Your task to perform on an android device: allow cookies in the chrome app Image 0: 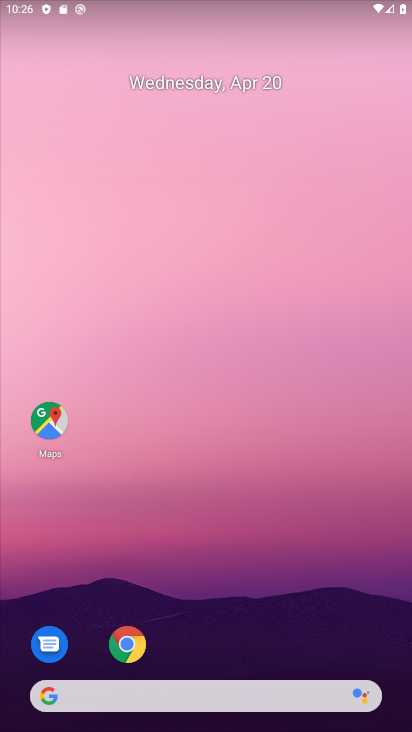
Step 0: click (124, 647)
Your task to perform on an android device: allow cookies in the chrome app Image 1: 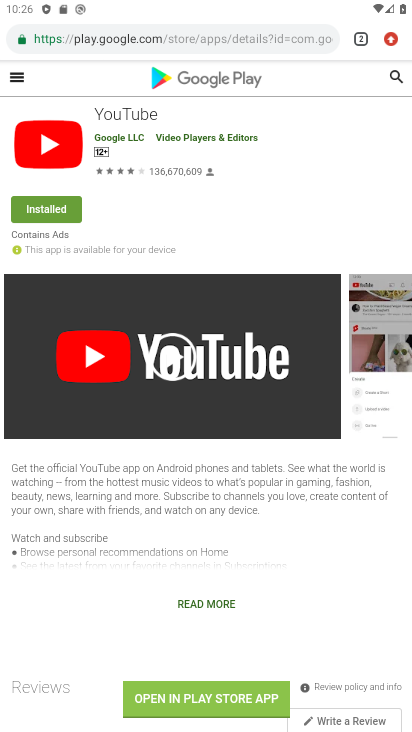
Step 1: click (388, 41)
Your task to perform on an android device: allow cookies in the chrome app Image 2: 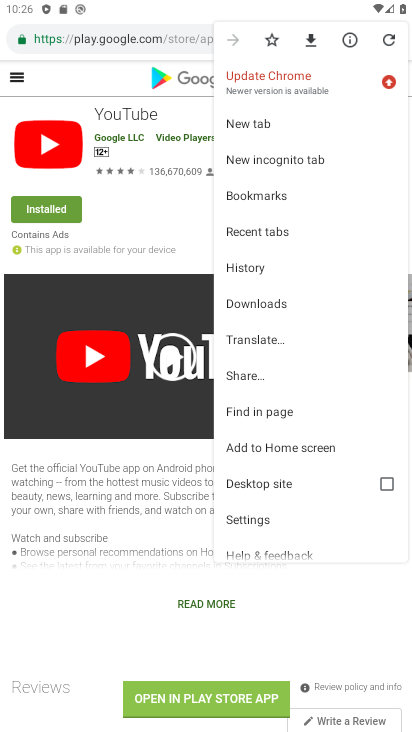
Step 2: click (259, 524)
Your task to perform on an android device: allow cookies in the chrome app Image 3: 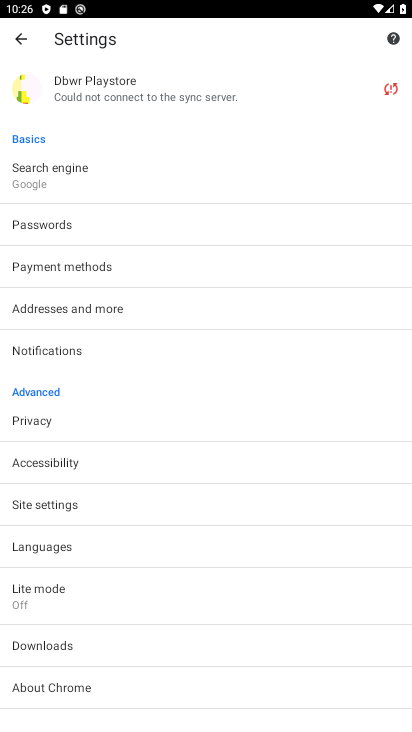
Step 3: drag from (97, 613) to (137, 250)
Your task to perform on an android device: allow cookies in the chrome app Image 4: 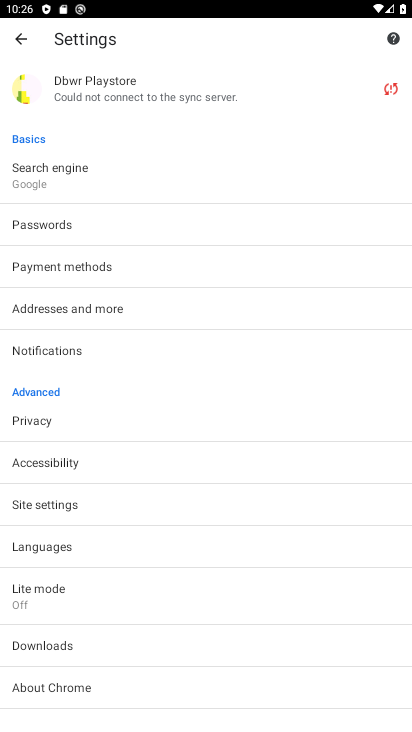
Step 4: click (65, 502)
Your task to perform on an android device: allow cookies in the chrome app Image 5: 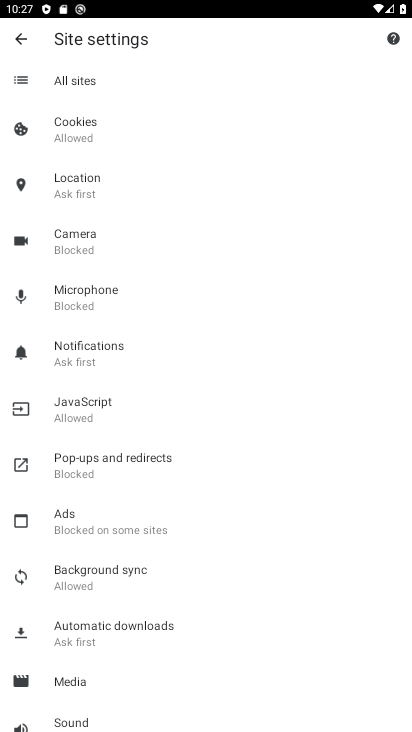
Step 5: click (108, 137)
Your task to perform on an android device: allow cookies in the chrome app Image 6: 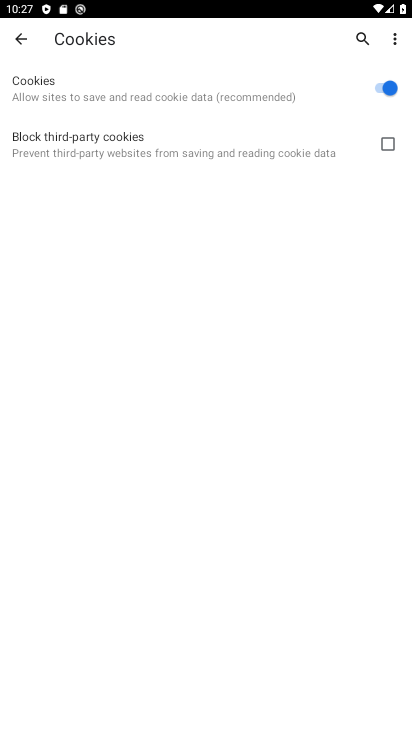
Step 6: task complete